Your task to perform on an android device: clear history in the chrome app Image 0: 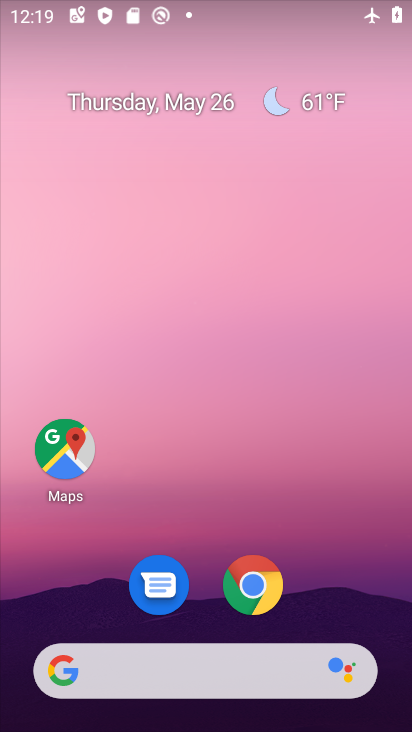
Step 0: click (252, 588)
Your task to perform on an android device: clear history in the chrome app Image 1: 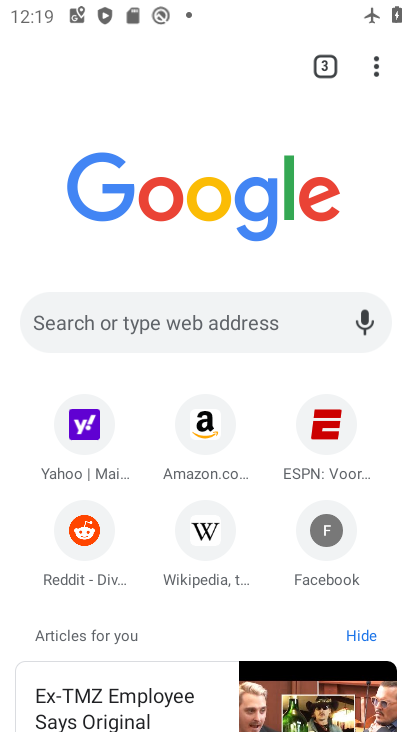
Step 1: click (376, 67)
Your task to perform on an android device: clear history in the chrome app Image 2: 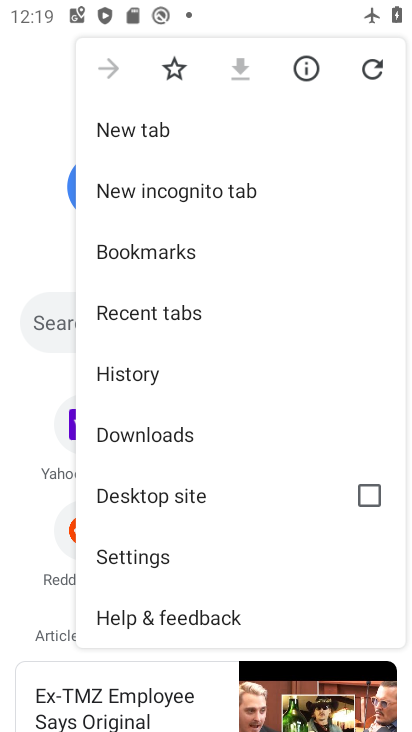
Step 2: click (142, 365)
Your task to perform on an android device: clear history in the chrome app Image 3: 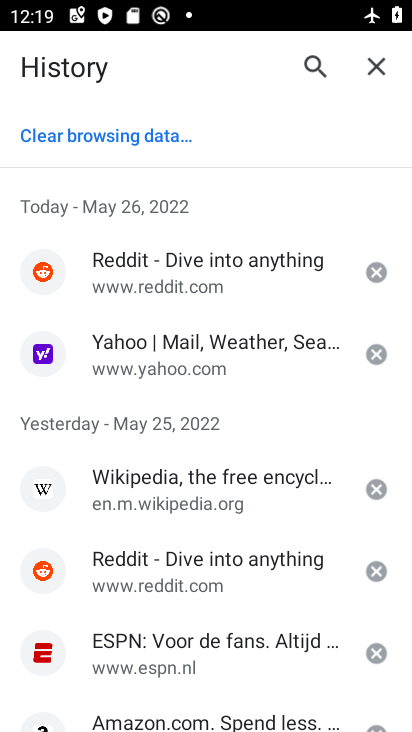
Step 3: click (155, 137)
Your task to perform on an android device: clear history in the chrome app Image 4: 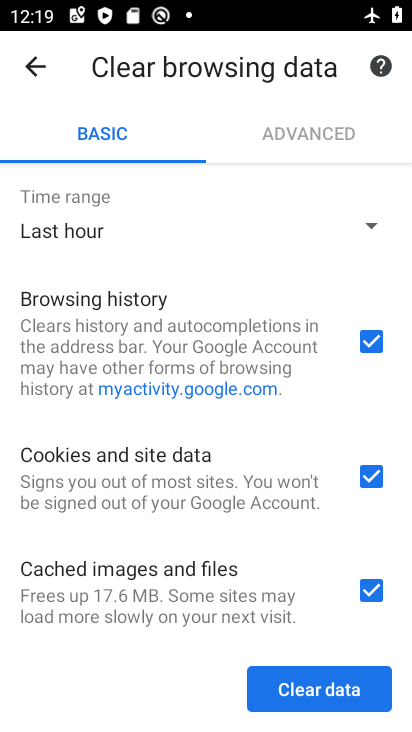
Step 4: click (326, 688)
Your task to perform on an android device: clear history in the chrome app Image 5: 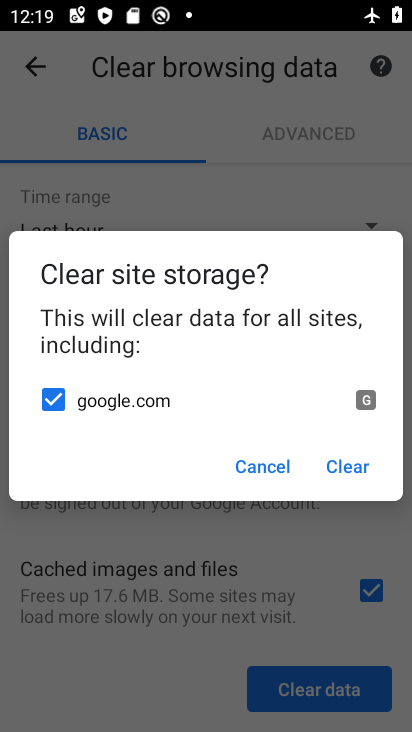
Step 5: click (350, 465)
Your task to perform on an android device: clear history in the chrome app Image 6: 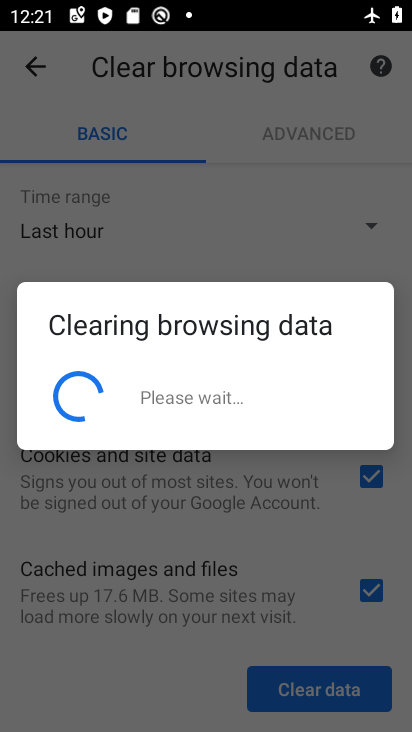
Step 6: task complete